Your task to perform on an android device: Go to location settings Image 0: 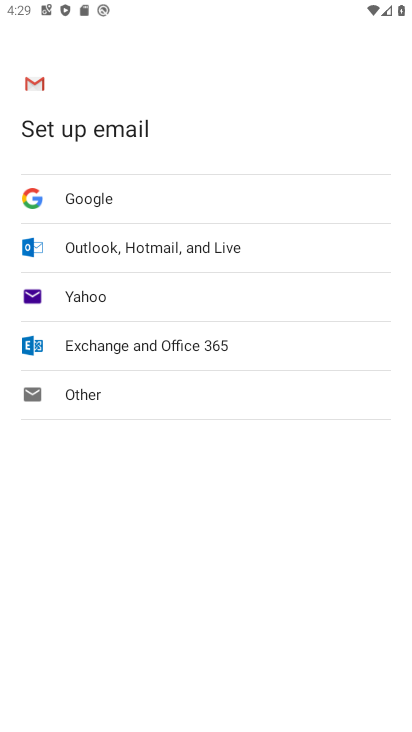
Step 0: press home button
Your task to perform on an android device: Go to location settings Image 1: 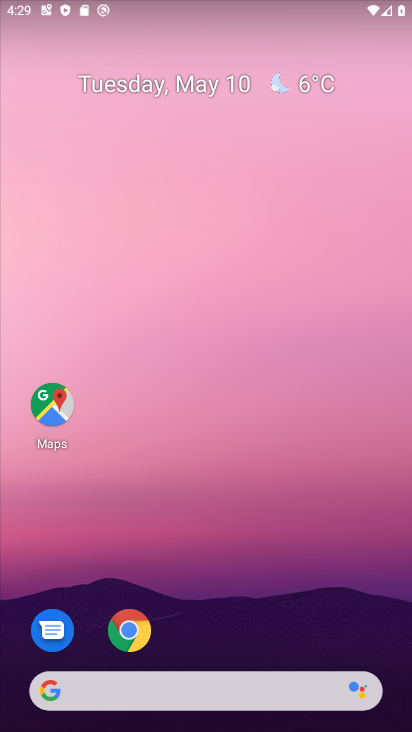
Step 1: drag from (269, 592) to (259, 178)
Your task to perform on an android device: Go to location settings Image 2: 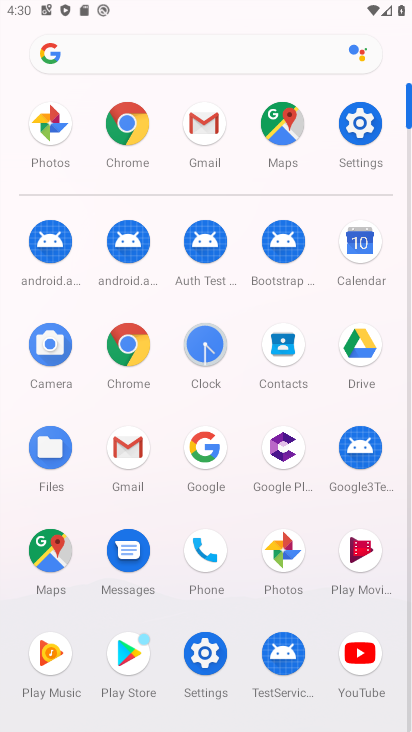
Step 2: click (363, 116)
Your task to perform on an android device: Go to location settings Image 3: 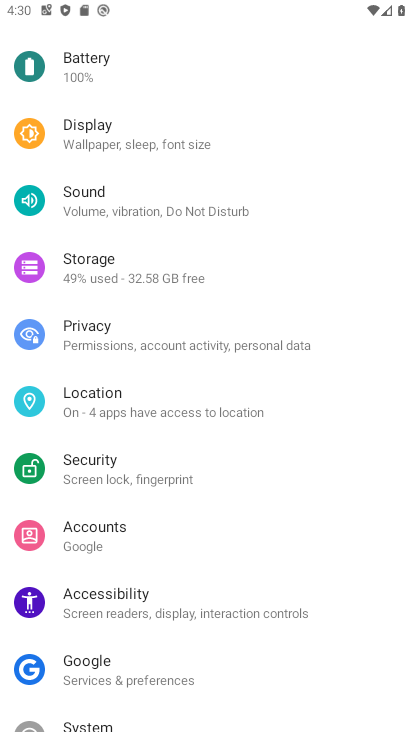
Step 3: drag from (181, 622) to (195, 581)
Your task to perform on an android device: Go to location settings Image 4: 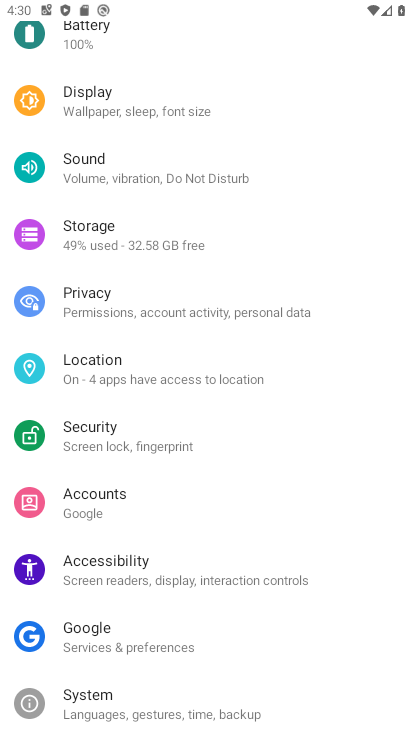
Step 4: click (150, 380)
Your task to perform on an android device: Go to location settings Image 5: 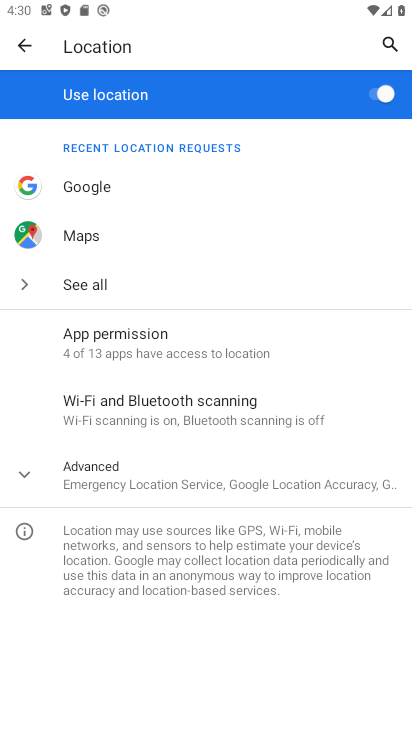
Step 5: task complete